Your task to perform on an android device: turn notification dots on Image 0: 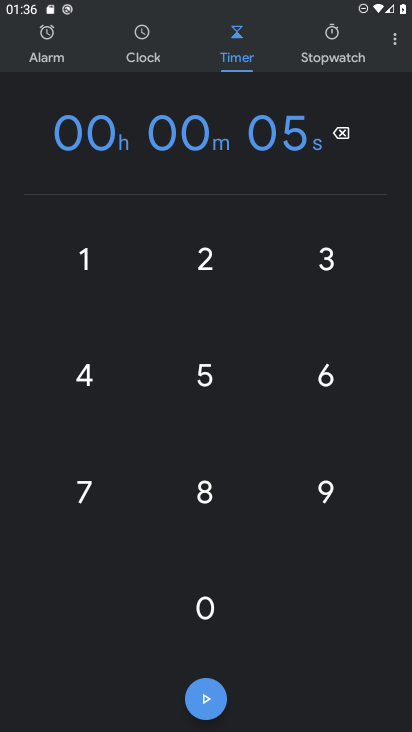
Step 0: press home button
Your task to perform on an android device: turn notification dots on Image 1: 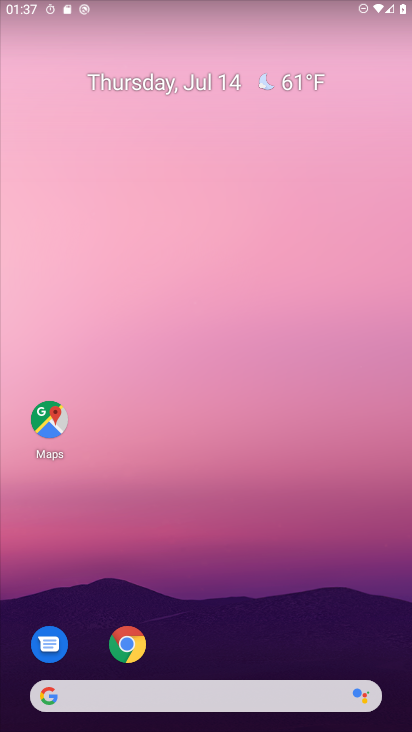
Step 1: drag from (300, 598) to (289, 127)
Your task to perform on an android device: turn notification dots on Image 2: 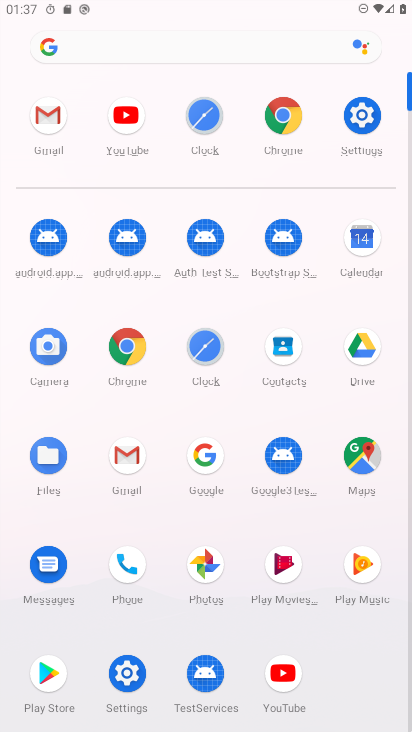
Step 2: click (359, 115)
Your task to perform on an android device: turn notification dots on Image 3: 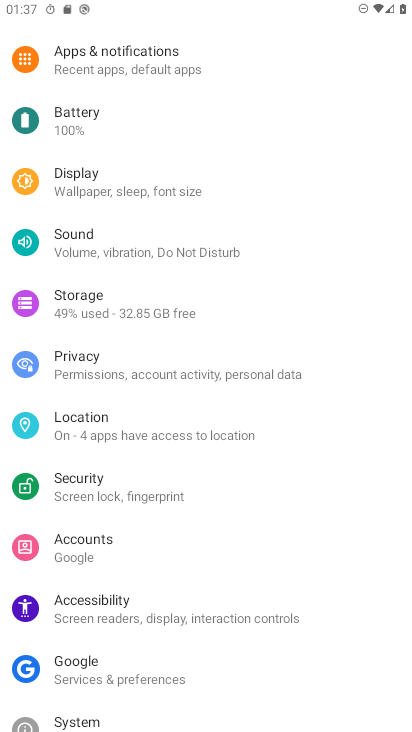
Step 3: click (175, 70)
Your task to perform on an android device: turn notification dots on Image 4: 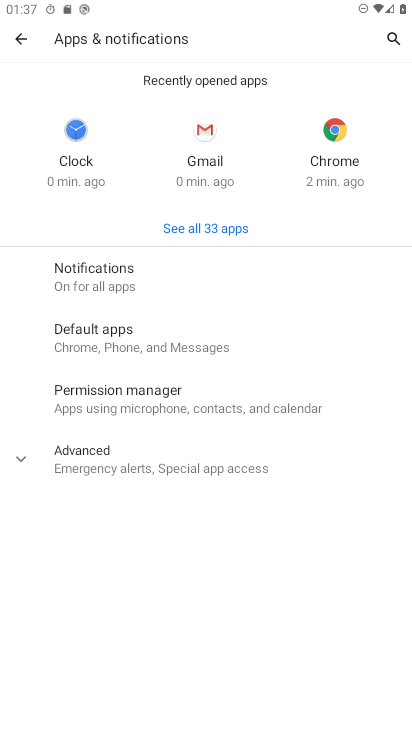
Step 4: click (111, 280)
Your task to perform on an android device: turn notification dots on Image 5: 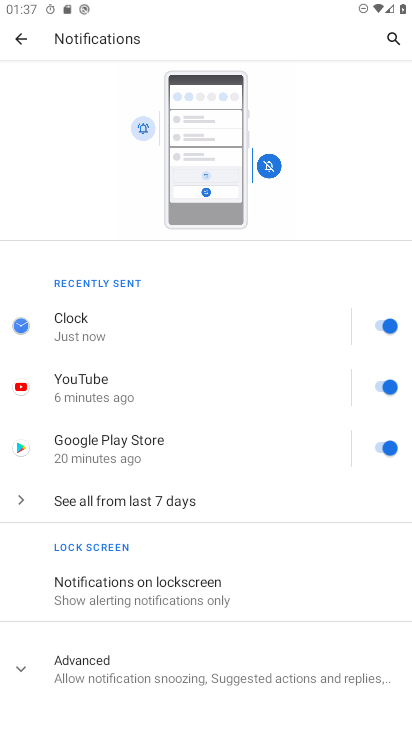
Step 5: drag from (172, 625) to (226, 205)
Your task to perform on an android device: turn notification dots on Image 6: 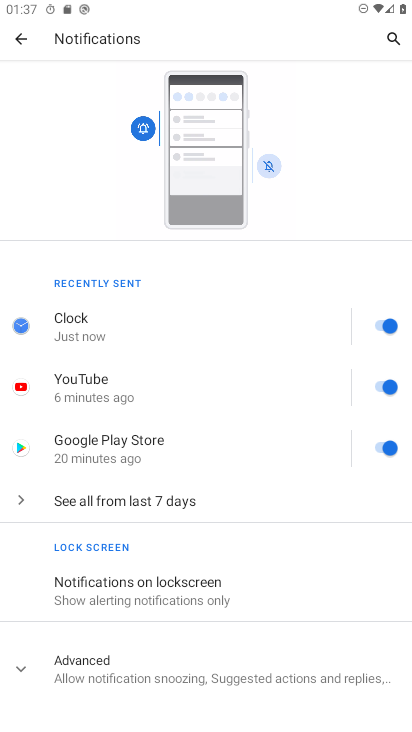
Step 6: click (120, 681)
Your task to perform on an android device: turn notification dots on Image 7: 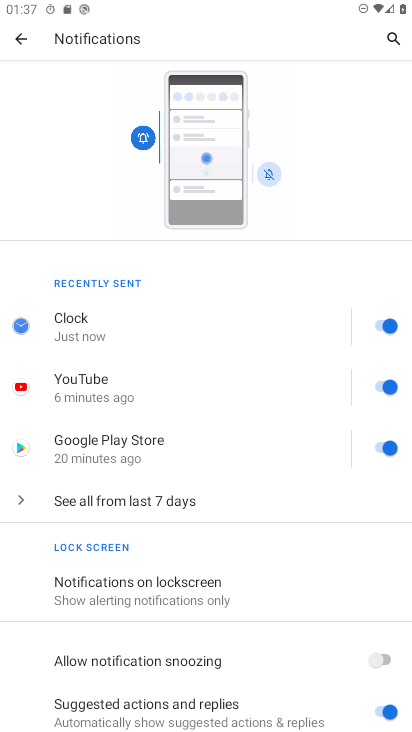
Step 7: task complete